Your task to perform on an android device: Search for vegetarian restaurants on Maps Image 0: 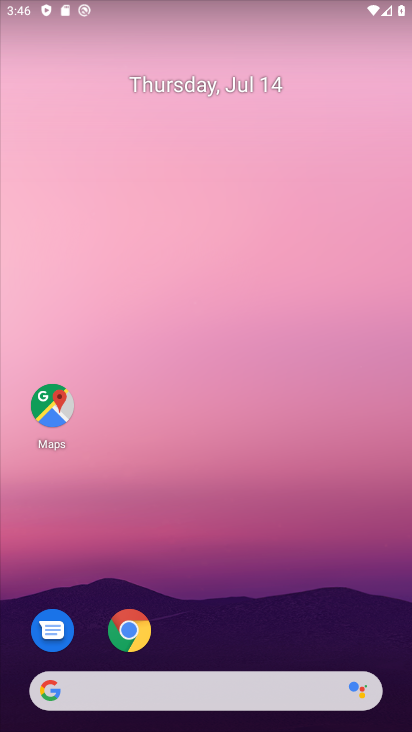
Step 0: drag from (211, 648) to (229, 23)
Your task to perform on an android device: Search for vegetarian restaurants on Maps Image 1: 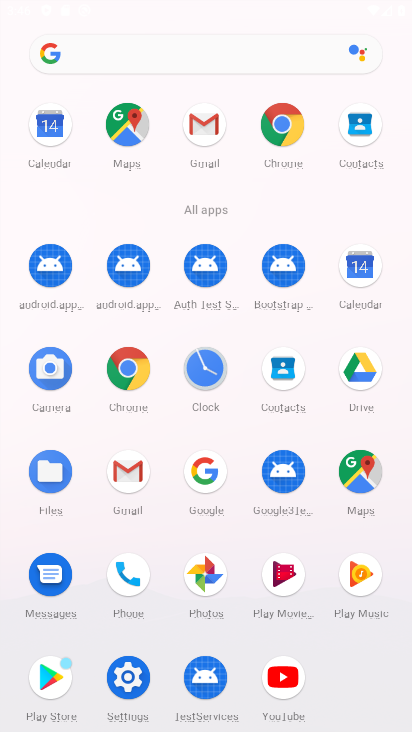
Step 1: click (361, 469)
Your task to perform on an android device: Search for vegetarian restaurants on Maps Image 2: 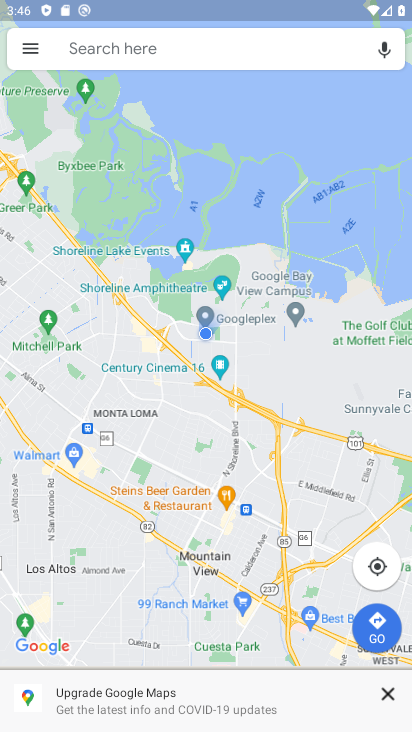
Step 2: click (212, 46)
Your task to perform on an android device: Search for vegetarian restaurants on Maps Image 3: 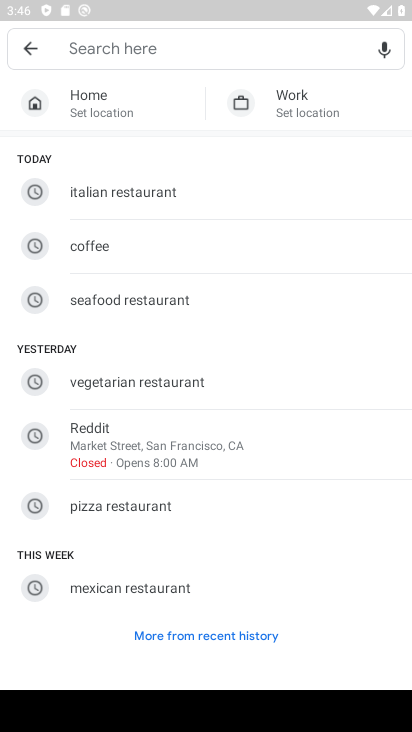
Step 3: click (150, 371)
Your task to perform on an android device: Search for vegetarian restaurants on Maps Image 4: 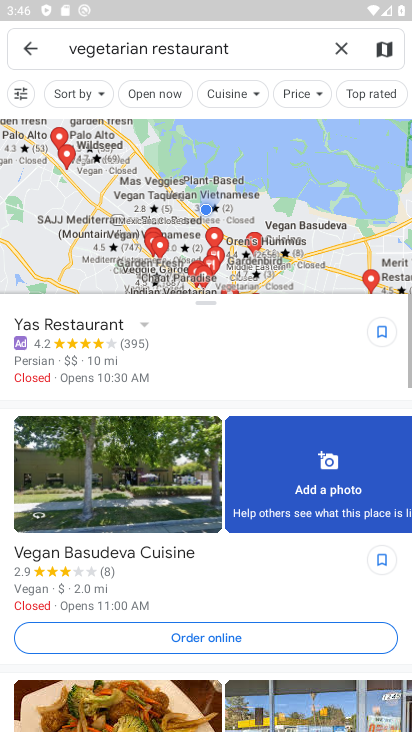
Step 4: task complete